Your task to perform on an android device: Go to settings Image 0: 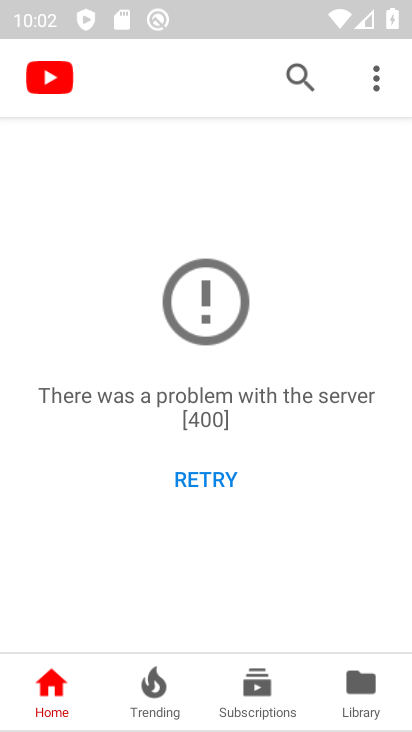
Step 0: press home button
Your task to perform on an android device: Go to settings Image 1: 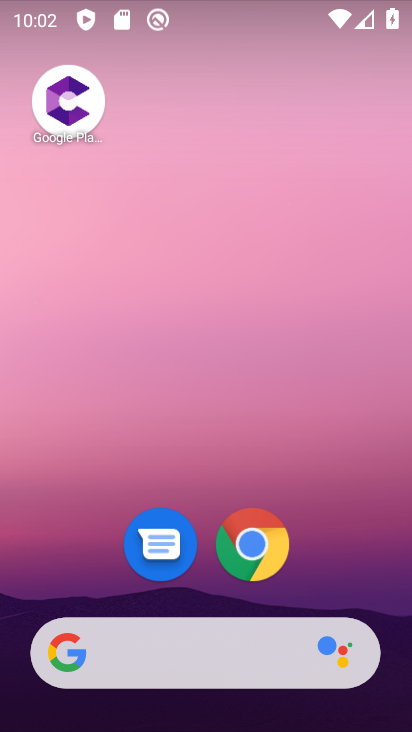
Step 1: drag from (303, 622) to (336, 6)
Your task to perform on an android device: Go to settings Image 2: 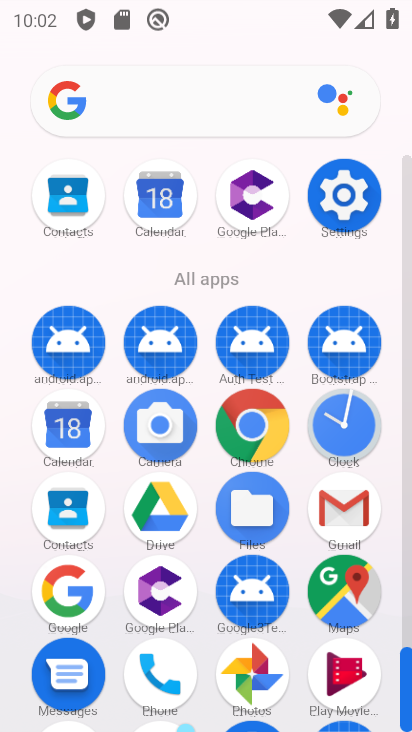
Step 2: click (340, 180)
Your task to perform on an android device: Go to settings Image 3: 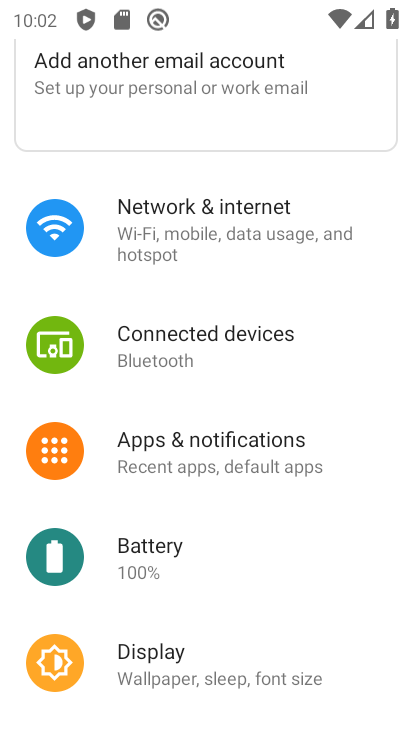
Step 3: task complete